Your task to perform on an android device: Open the gallery Image 0: 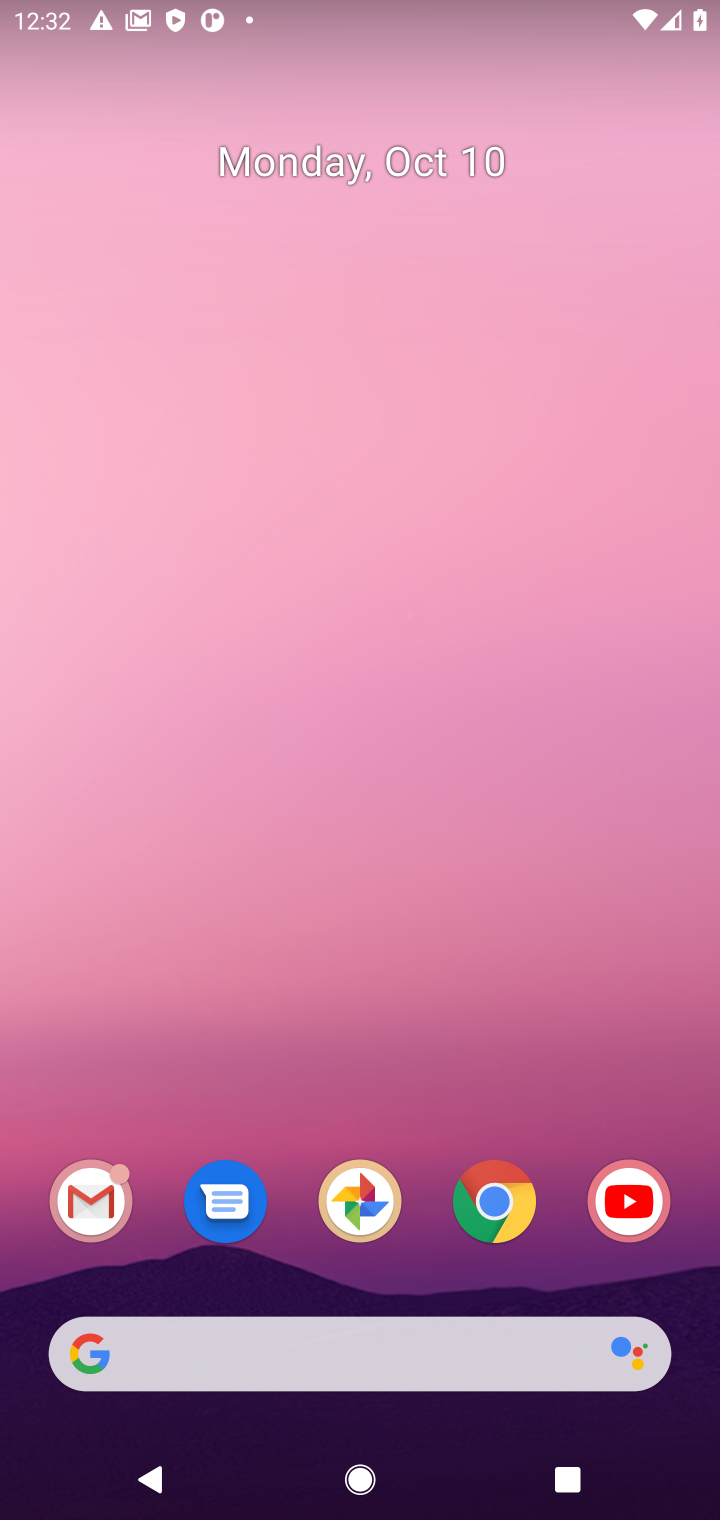
Step 0: drag from (425, 1220) to (357, 0)
Your task to perform on an android device: Open the gallery Image 1: 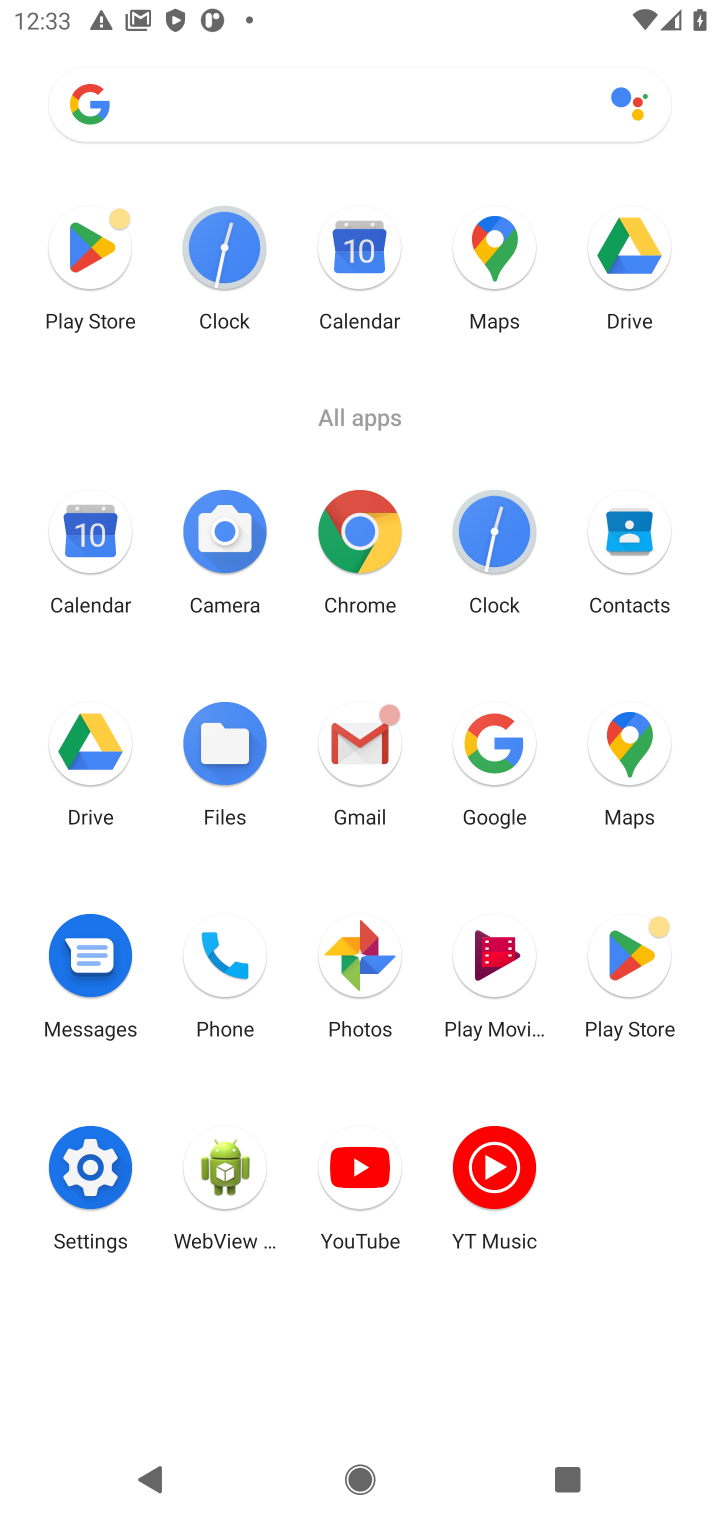
Step 1: task complete